Your task to perform on an android device: open the mobile data screen to see how much data has been used Image 0: 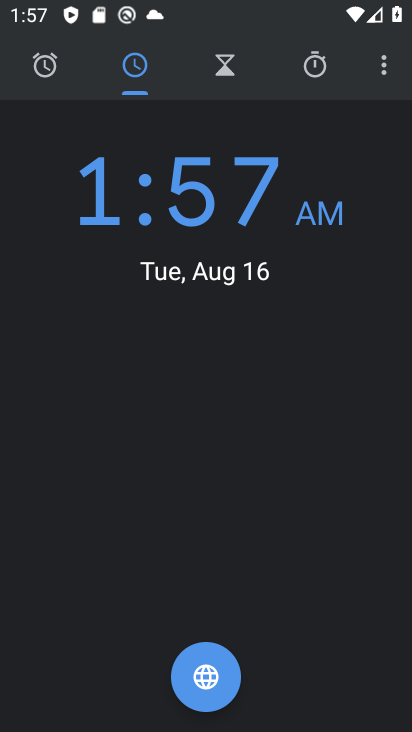
Step 0: drag from (278, 198) to (281, 623)
Your task to perform on an android device: open the mobile data screen to see how much data has been used Image 1: 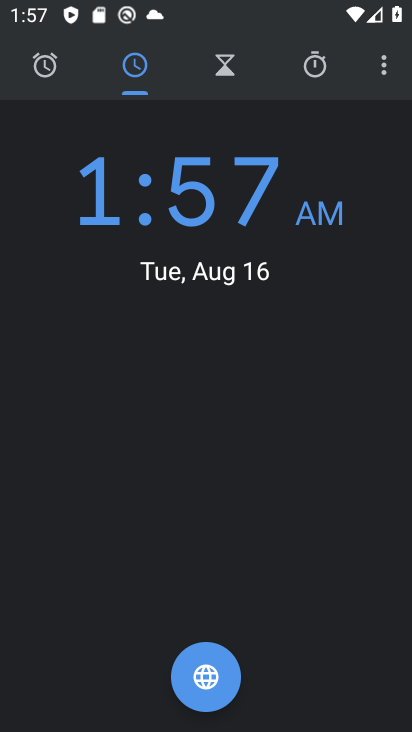
Step 1: drag from (215, 642) to (225, 604)
Your task to perform on an android device: open the mobile data screen to see how much data has been used Image 2: 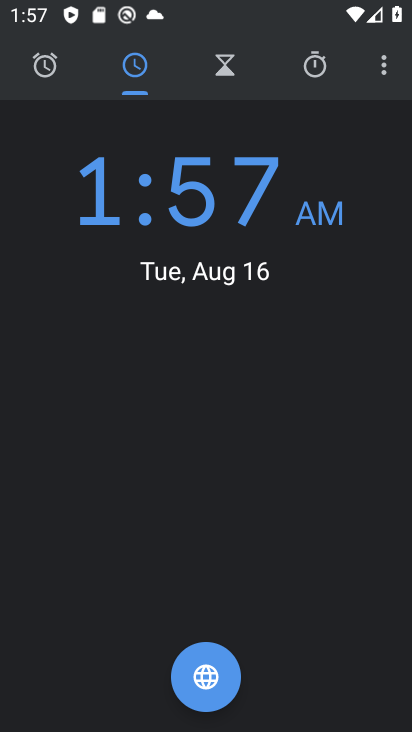
Step 2: click (200, 682)
Your task to perform on an android device: open the mobile data screen to see how much data has been used Image 3: 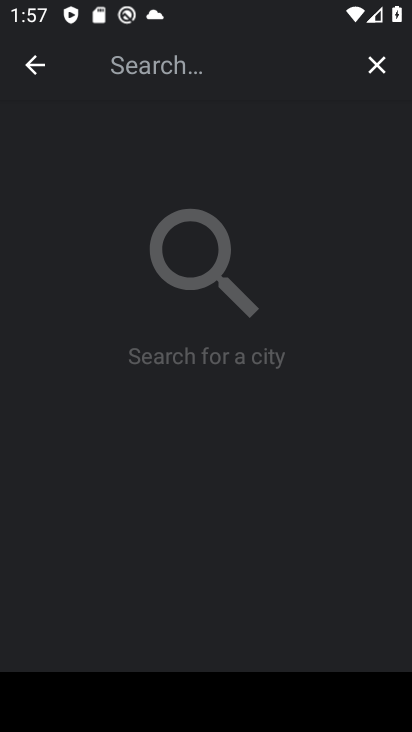
Step 3: click (45, 65)
Your task to perform on an android device: open the mobile data screen to see how much data has been used Image 4: 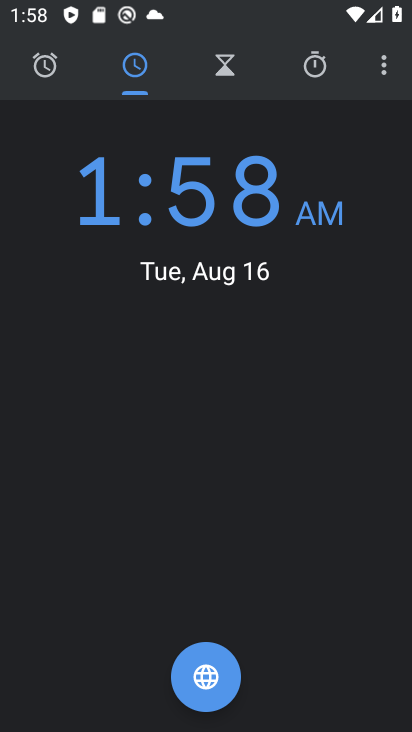
Step 4: task complete